Your task to perform on an android device: Go to calendar. Show me events next week Image 0: 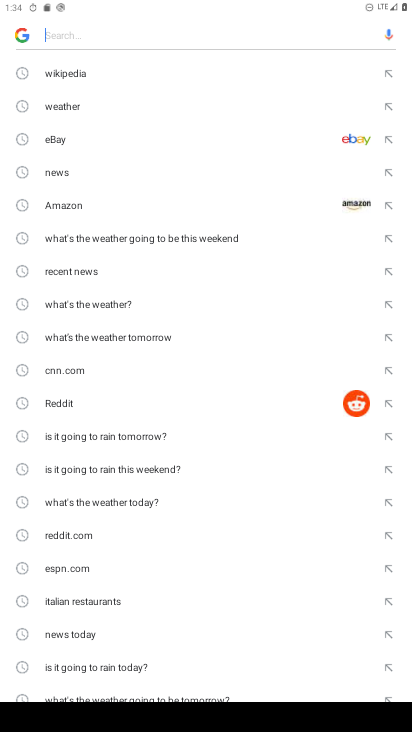
Step 0: press home button
Your task to perform on an android device: Go to calendar. Show me events next week Image 1: 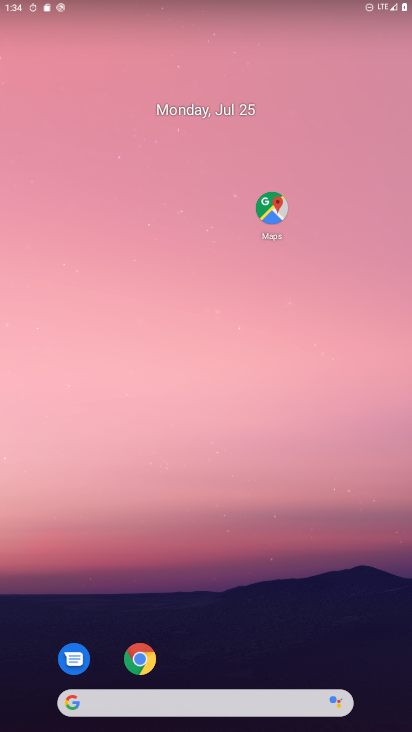
Step 1: drag from (23, 673) to (247, 122)
Your task to perform on an android device: Go to calendar. Show me events next week Image 2: 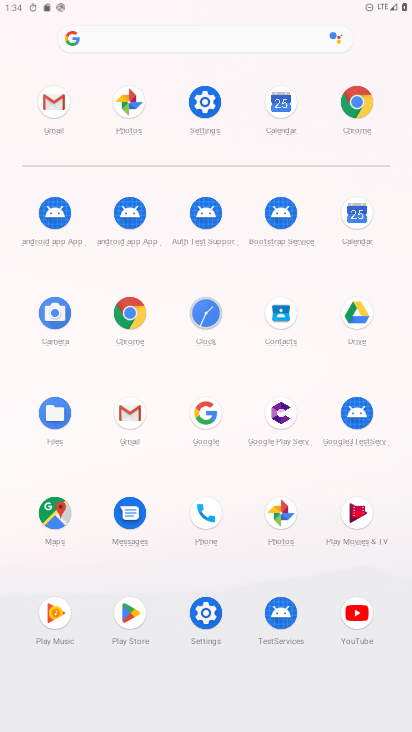
Step 2: drag from (29, 679) to (220, 20)
Your task to perform on an android device: Go to calendar. Show me events next week Image 3: 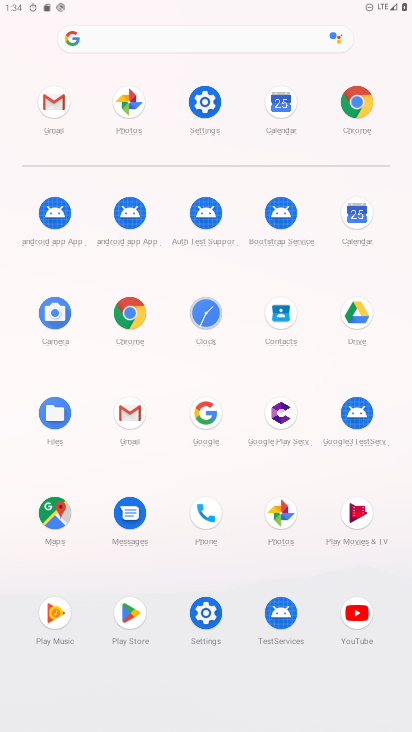
Step 3: click (352, 212)
Your task to perform on an android device: Go to calendar. Show me events next week Image 4: 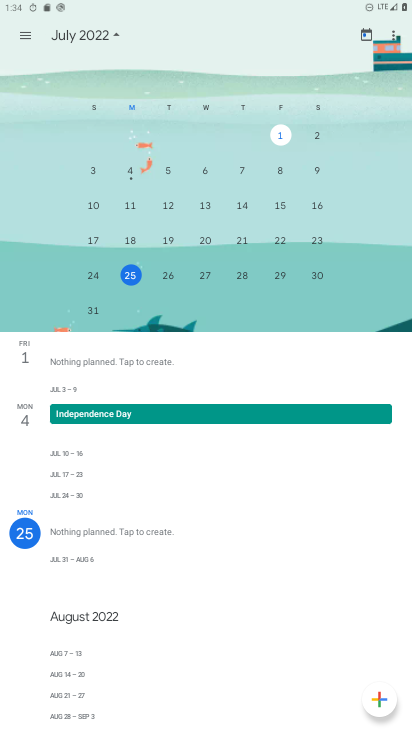
Step 4: task complete